Your task to perform on an android device: Go to accessibility settings Image 0: 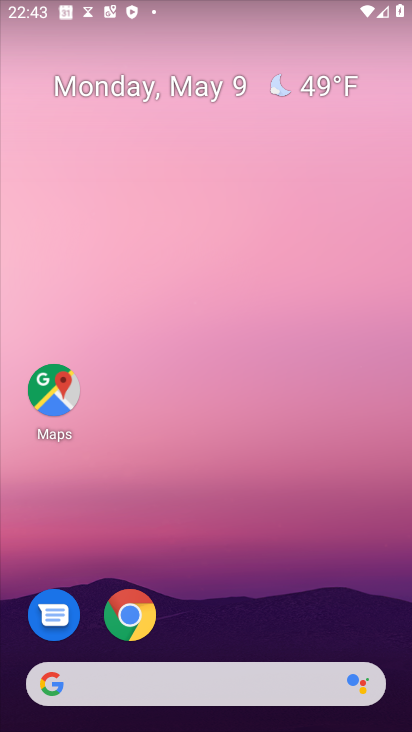
Step 0: drag from (200, 617) to (227, 284)
Your task to perform on an android device: Go to accessibility settings Image 1: 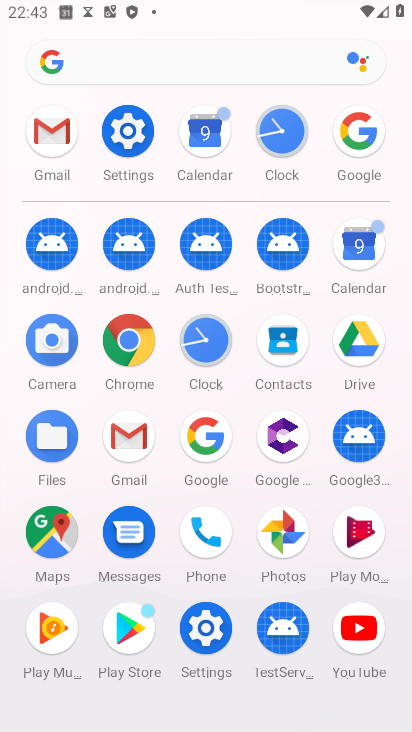
Step 1: click (130, 131)
Your task to perform on an android device: Go to accessibility settings Image 2: 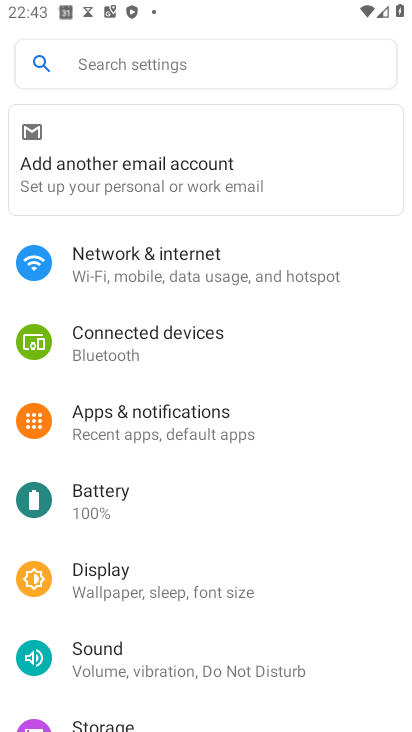
Step 2: drag from (161, 558) to (181, 240)
Your task to perform on an android device: Go to accessibility settings Image 3: 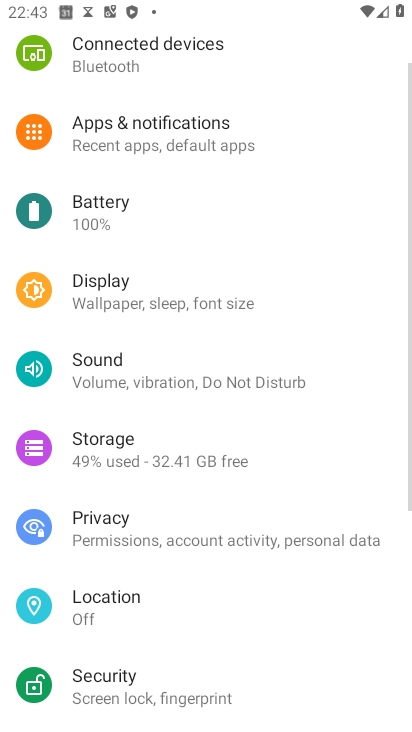
Step 3: drag from (150, 647) to (177, 301)
Your task to perform on an android device: Go to accessibility settings Image 4: 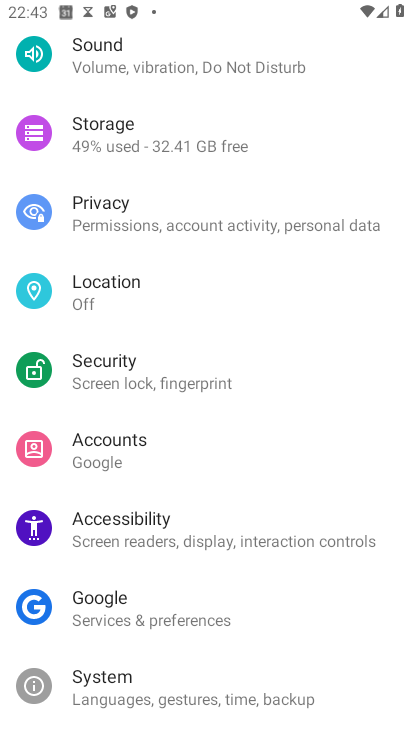
Step 4: click (149, 540)
Your task to perform on an android device: Go to accessibility settings Image 5: 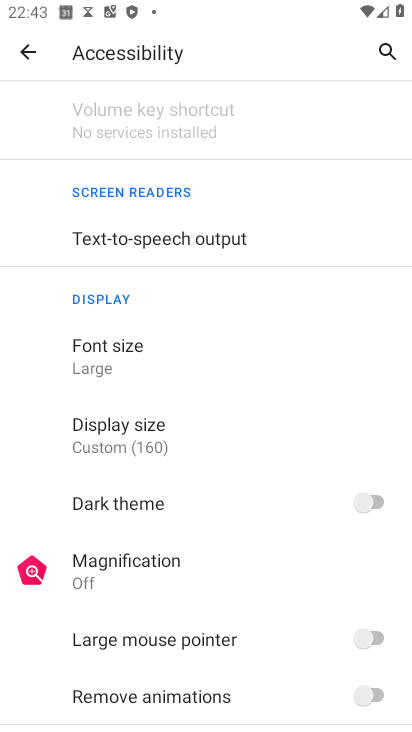
Step 5: task complete